Your task to perform on an android device: Search for Mexican restaurants on Maps Image 0: 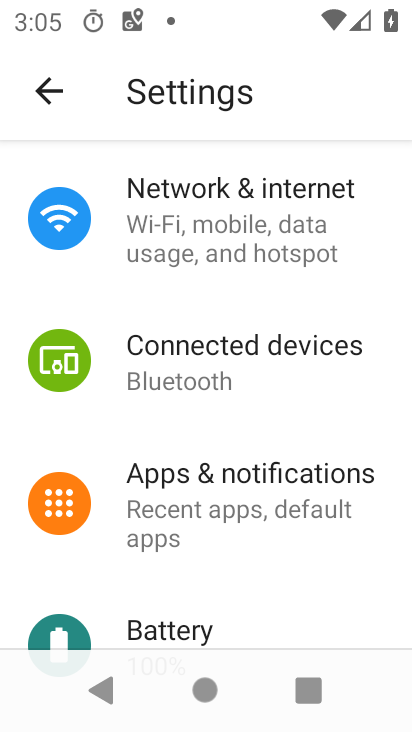
Step 0: press home button
Your task to perform on an android device: Search for Mexican restaurants on Maps Image 1: 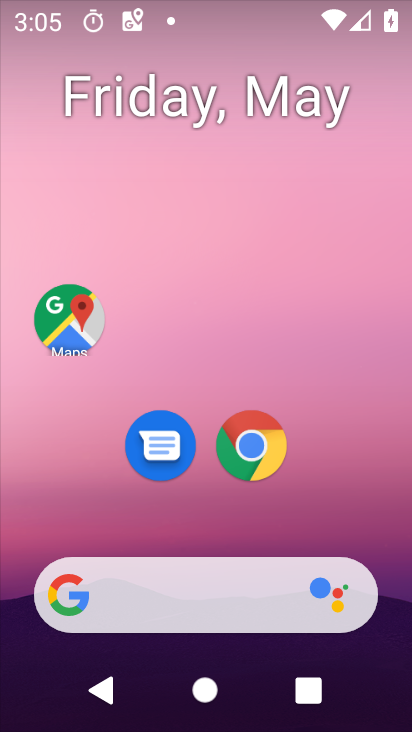
Step 1: drag from (259, 674) to (324, 86)
Your task to perform on an android device: Search for Mexican restaurants on Maps Image 2: 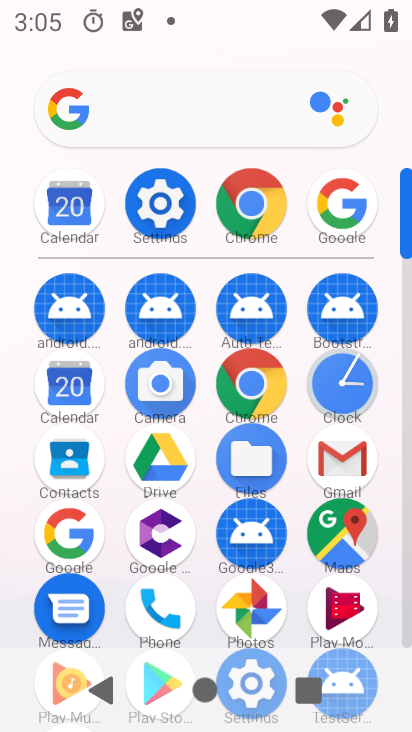
Step 2: click (340, 548)
Your task to perform on an android device: Search for Mexican restaurants on Maps Image 3: 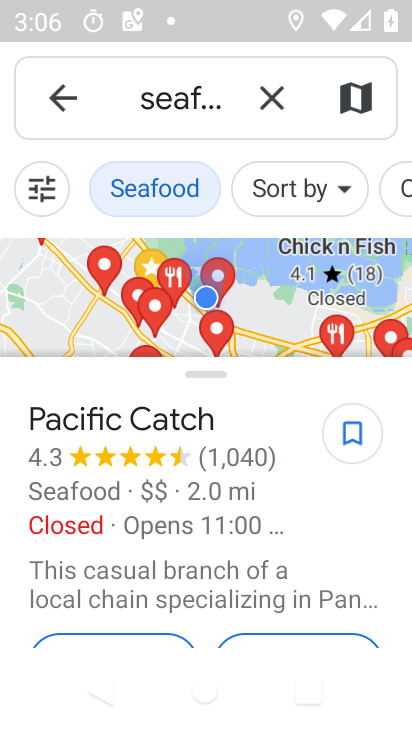
Step 3: press home button
Your task to perform on an android device: Search for Mexican restaurants on Maps Image 4: 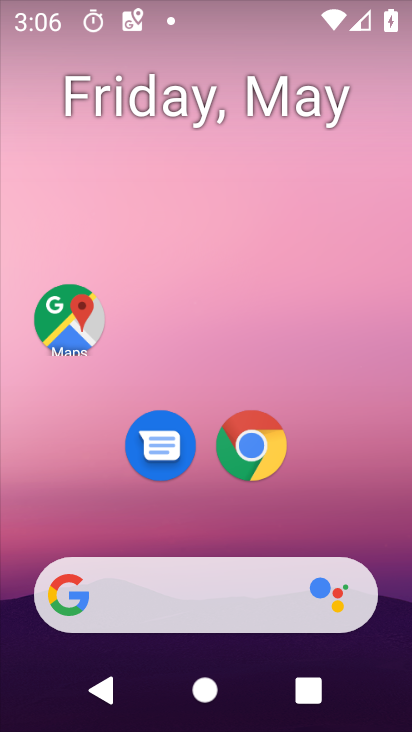
Step 4: drag from (202, 654) to (237, 154)
Your task to perform on an android device: Search for Mexican restaurants on Maps Image 5: 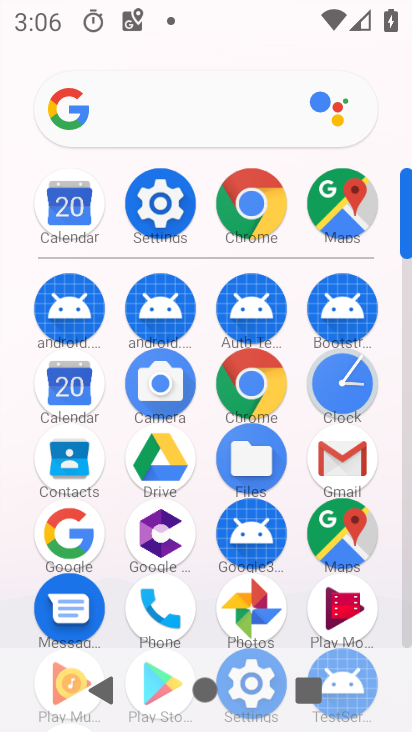
Step 5: click (353, 539)
Your task to perform on an android device: Search for Mexican restaurants on Maps Image 6: 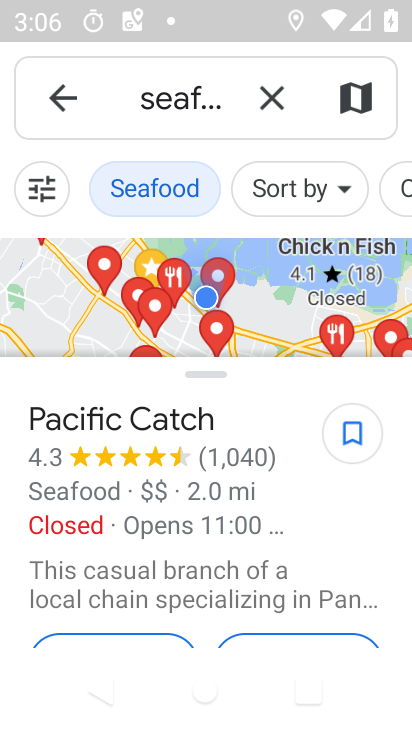
Step 6: click (278, 110)
Your task to perform on an android device: Search for Mexican restaurants on Maps Image 7: 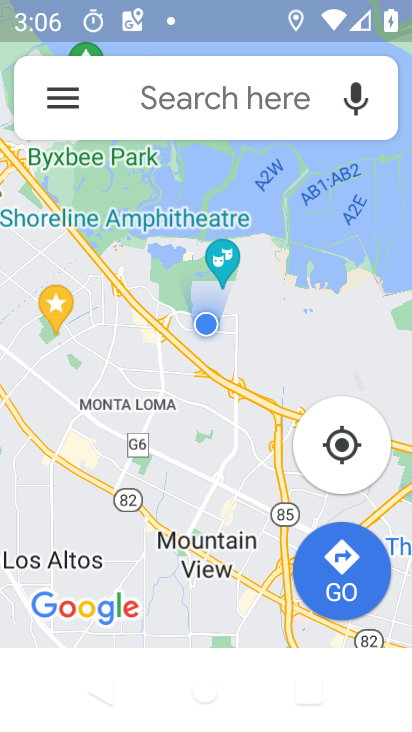
Step 7: click (237, 111)
Your task to perform on an android device: Search for Mexican restaurants on Maps Image 8: 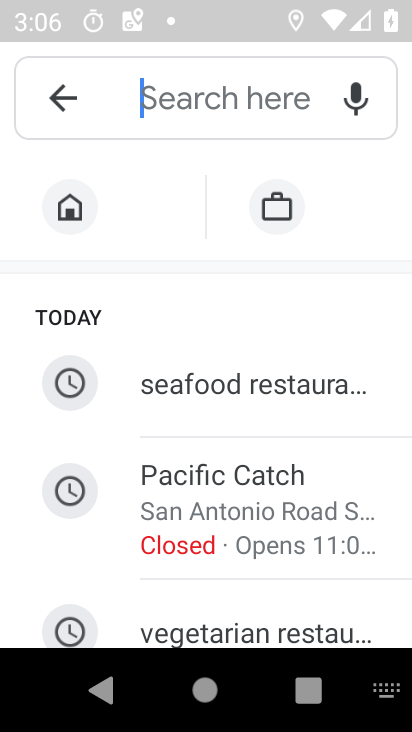
Step 8: drag from (266, 527) to (289, 226)
Your task to perform on an android device: Search for Mexican restaurants on Maps Image 9: 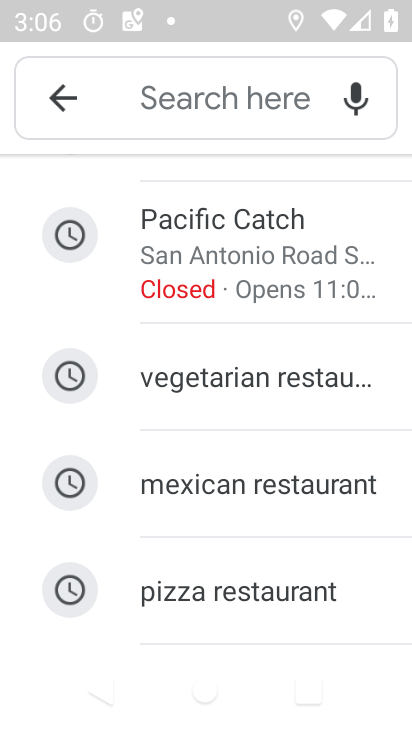
Step 9: click (264, 497)
Your task to perform on an android device: Search for Mexican restaurants on Maps Image 10: 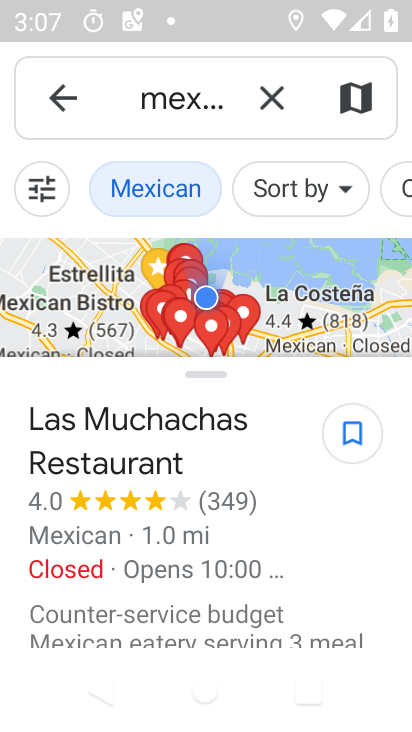
Step 10: task complete